Your task to perform on an android device: Open maps Image 0: 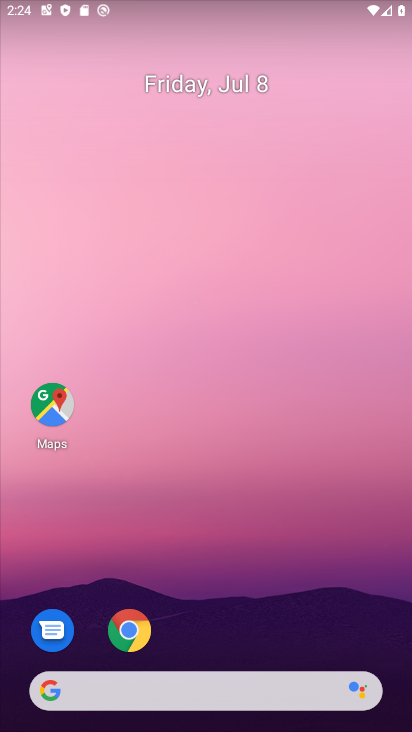
Step 0: drag from (322, 646) to (331, 114)
Your task to perform on an android device: Open maps Image 1: 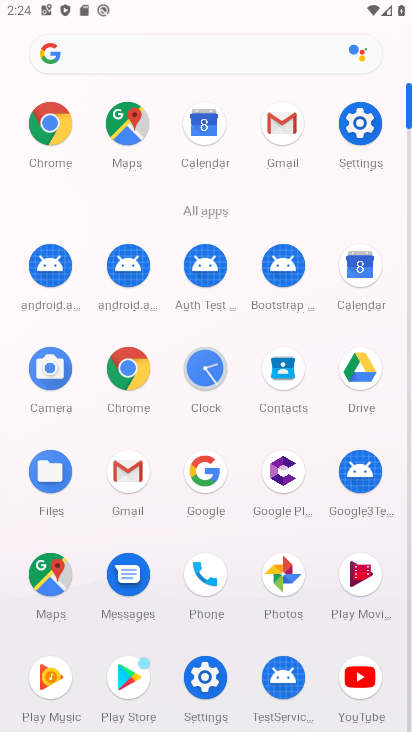
Step 1: click (278, 574)
Your task to perform on an android device: Open maps Image 2: 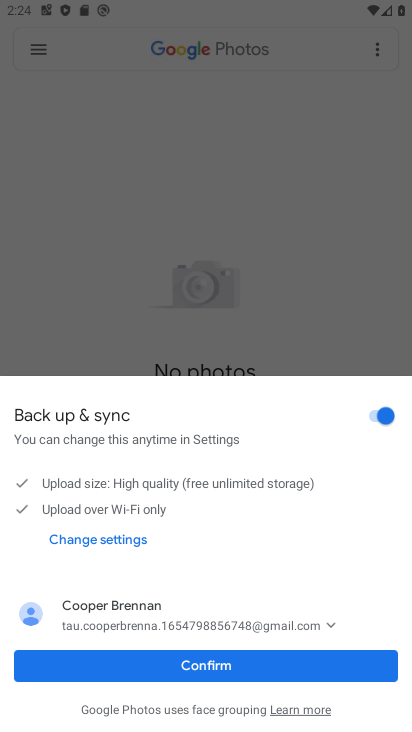
Step 2: click (269, 652)
Your task to perform on an android device: Open maps Image 3: 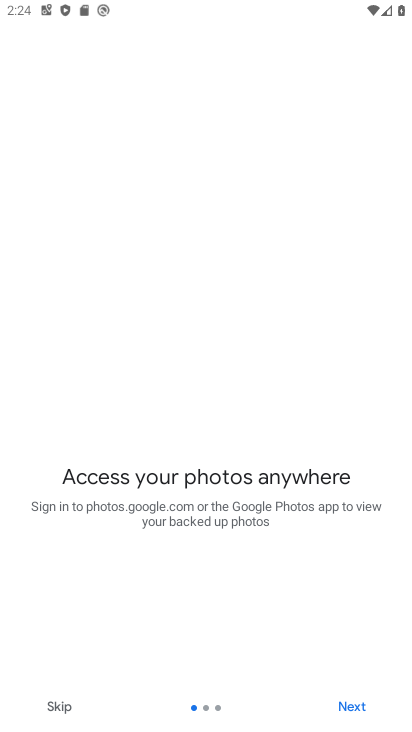
Step 3: press home button
Your task to perform on an android device: Open maps Image 4: 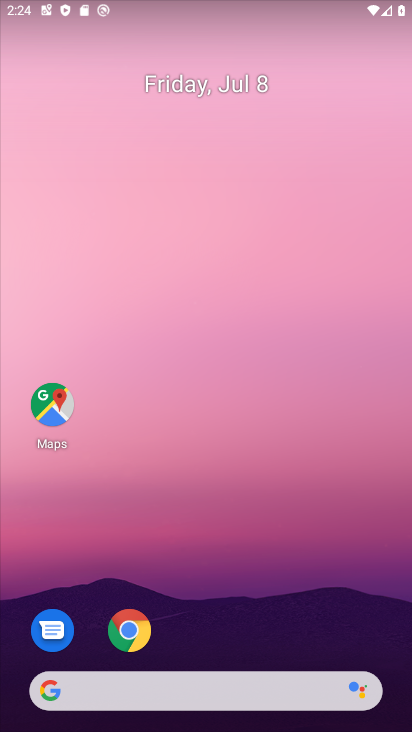
Step 4: click (64, 399)
Your task to perform on an android device: Open maps Image 5: 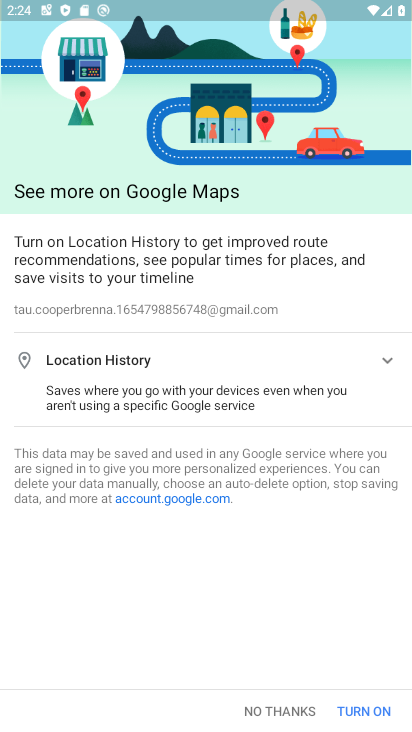
Step 5: click (357, 697)
Your task to perform on an android device: Open maps Image 6: 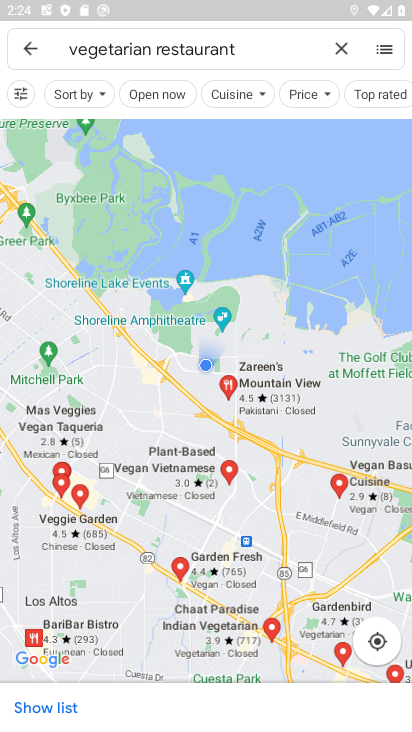
Step 6: click (357, 697)
Your task to perform on an android device: Open maps Image 7: 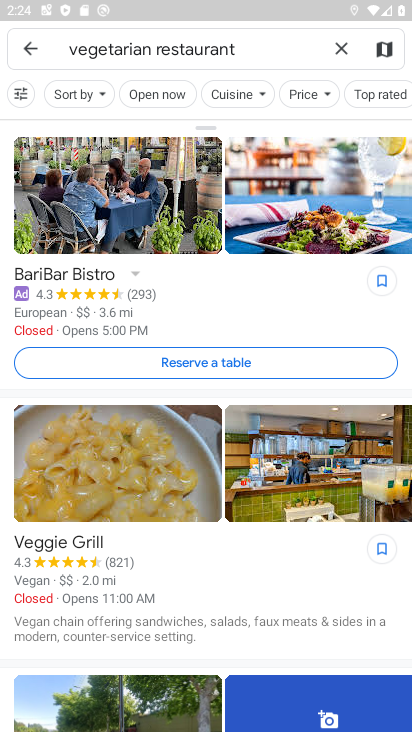
Step 7: task complete